Your task to perform on an android device: toggle wifi Image 0: 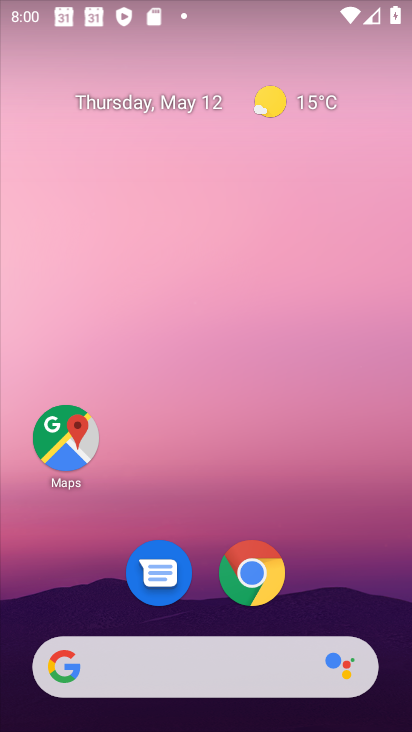
Step 0: drag from (368, 554) to (258, 80)
Your task to perform on an android device: toggle wifi Image 1: 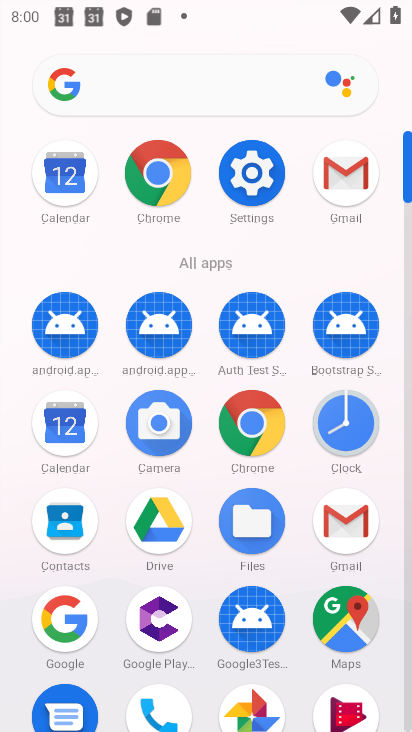
Step 1: click (248, 173)
Your task to perform on an android device: toggle wifi Image 2: 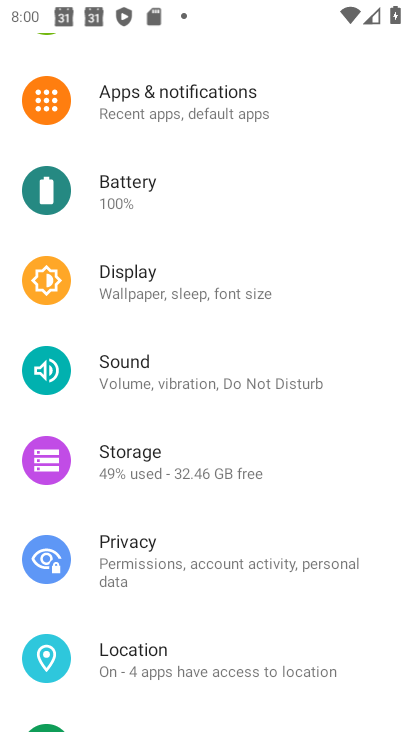
Step 2: drag from (212, 236) to (270, 701)
Your task to perform on an android device: toggle wifi Image 3: 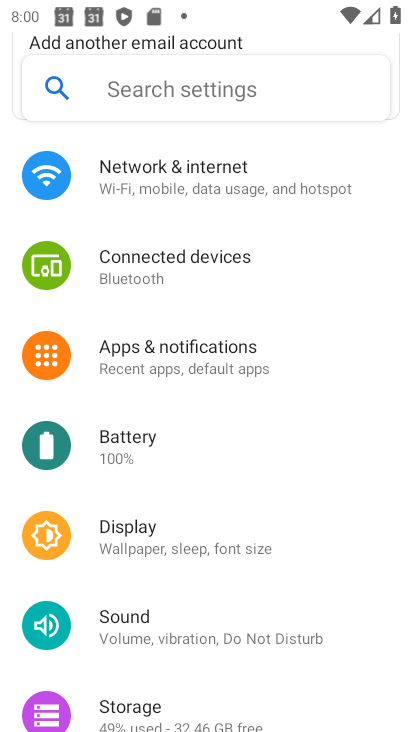
Step 3: click (141, 178)
Your task to perform on an android device: toggle wifi Image 4: 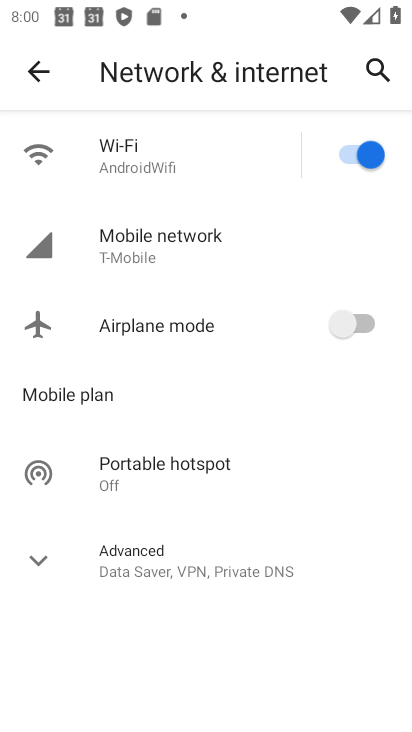
Step 4: click (368, 153)
Your task to perform on an android device: toggle wifi Image 5: 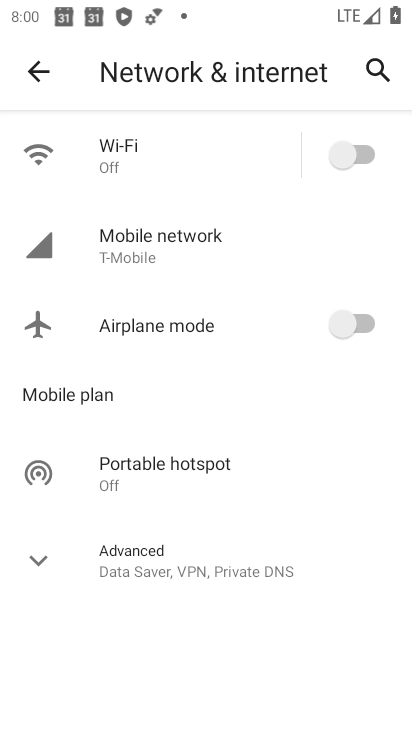
Step 5: task complete